Your task to perform on an android device: What is the recent news? Image 0: 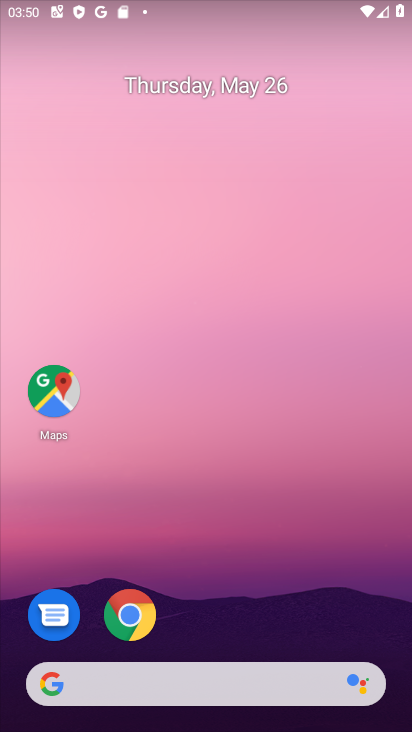
Step 0: drag from (202, 632) to (233, 170)
Your task to perform on an android device: What is the recent news? Image 1: 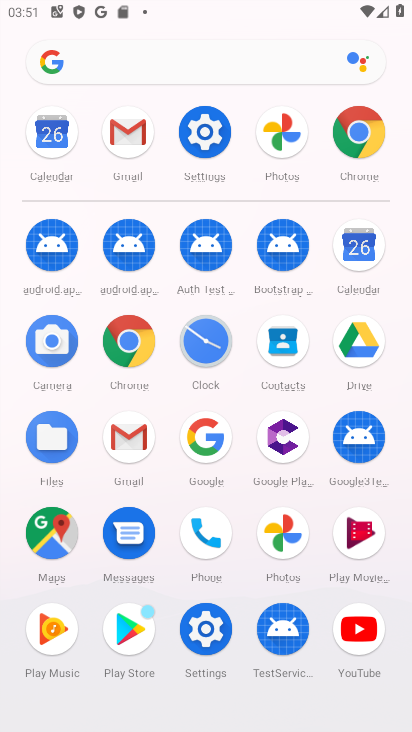
Step 1: click (210, 462)
Your task to perform on an android device: What is the recent news? Image 2: 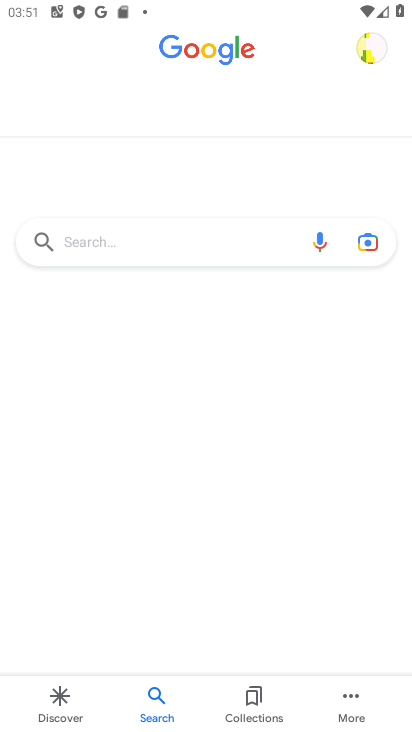
Step 2: click (237, 253)
Your task to perform on an android device: What is the recent news? Image 3: 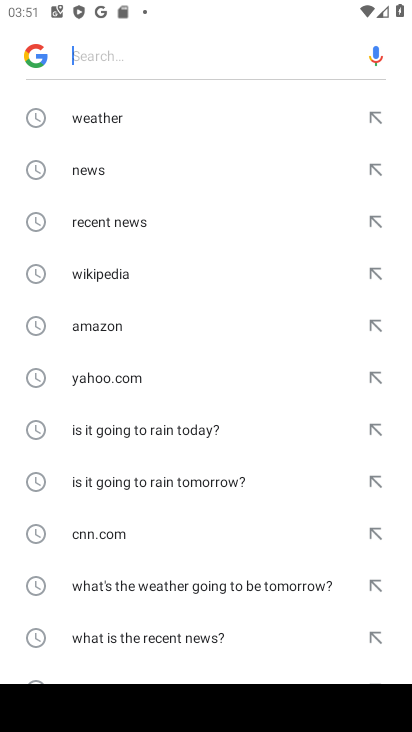
Step 3: click (112, 226)
Your task to perform on an android device: What is the recent news? Image 4: 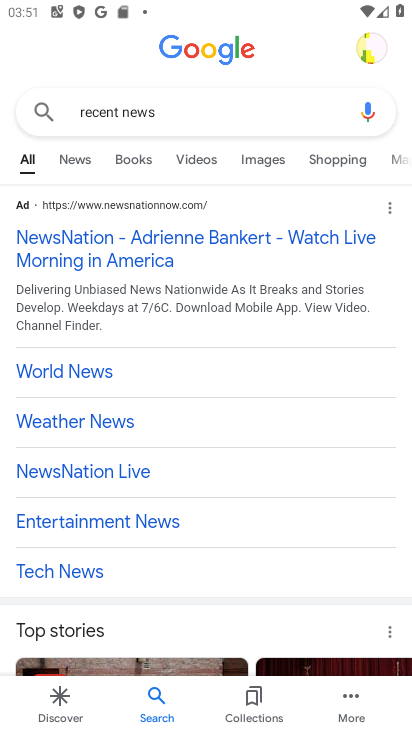
Step 4: task complete